Your task to perform on an android device: Is it going to rain today? Image 0: 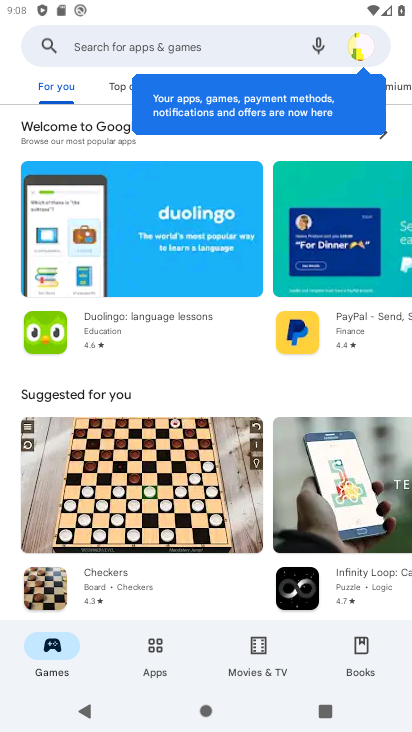
Step 0: press home button
Your task to perform on an android device: Is it going to rain today? Image 1: 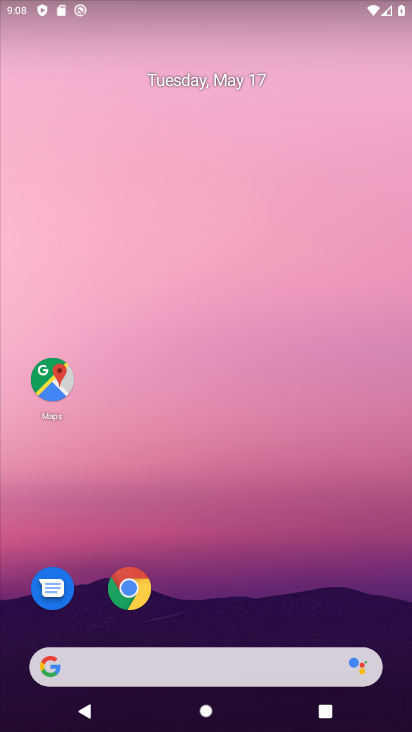
Step 1: drag from (302, 418) to (300, 180)
Your task to perform on an android device: Is it going to rain today? Image 2: 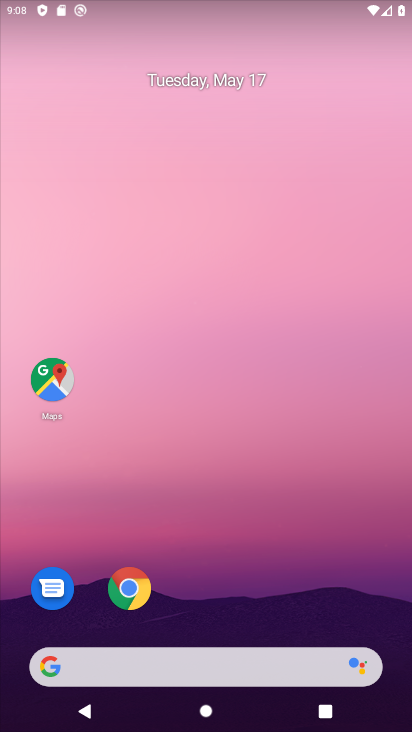
Step 2: click (124, 575)
Your task to perform on an android device: Is it going to rain today? Image 3: 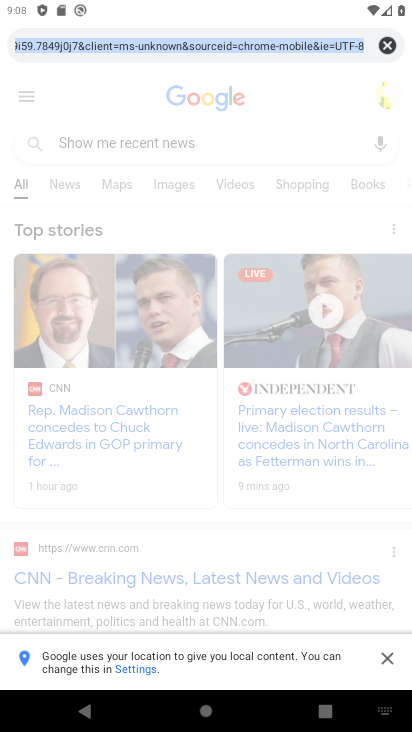
Step 3: click (390, 41)
Your task to perform on an android device: Is it going to rain today? Image 4: 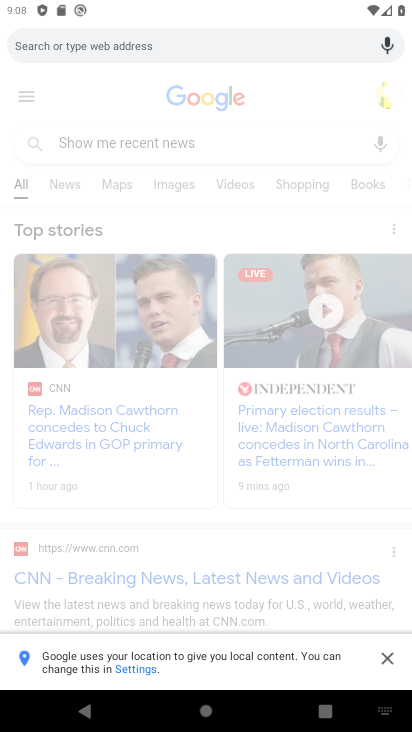
Step 4: click (316, 82)
Your task to perform on an android device: Is it going to rain today? Image 5: 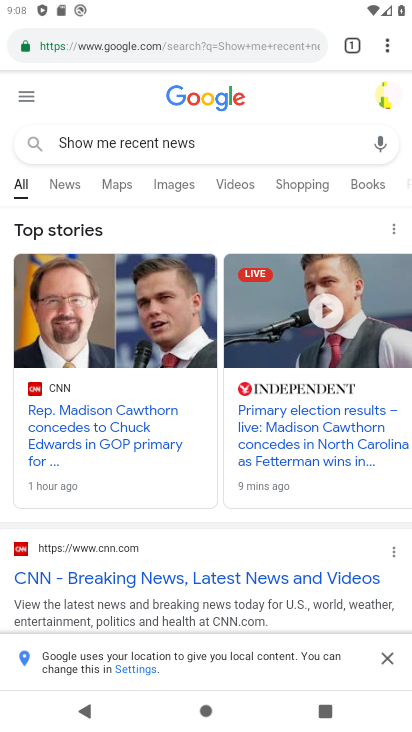
Step 5: click (337, 106)
Your task to perform on an android device: Is it going to rain today? Image 6: 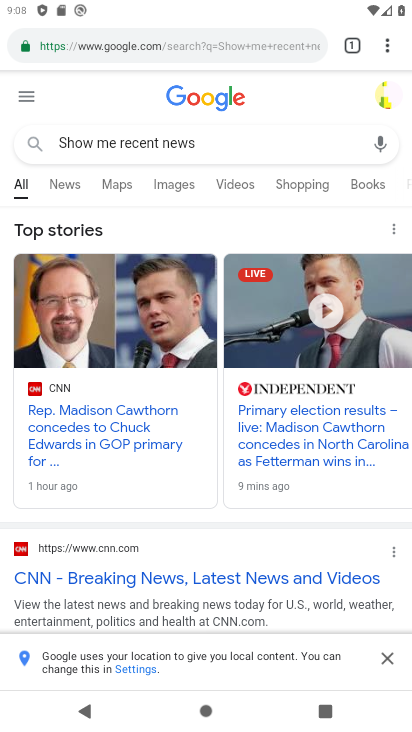
Step 6: click (384, 42)
Your task to perform on an android device: Is it going to rain today? Image 7: 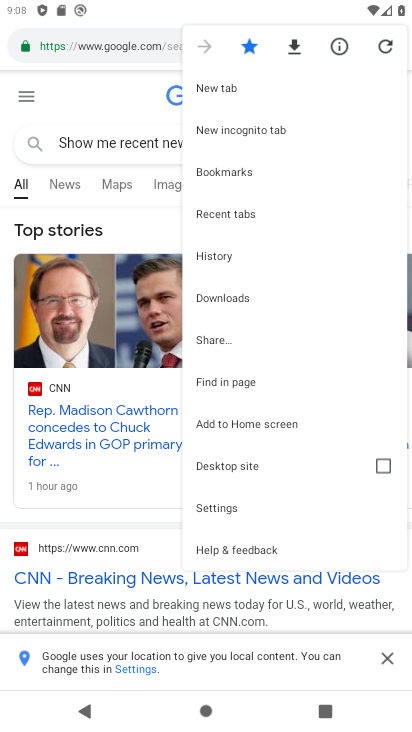
Step 7: click (251, 85)
Your task to perform on an android device: Is it going to rain today? Image 8: 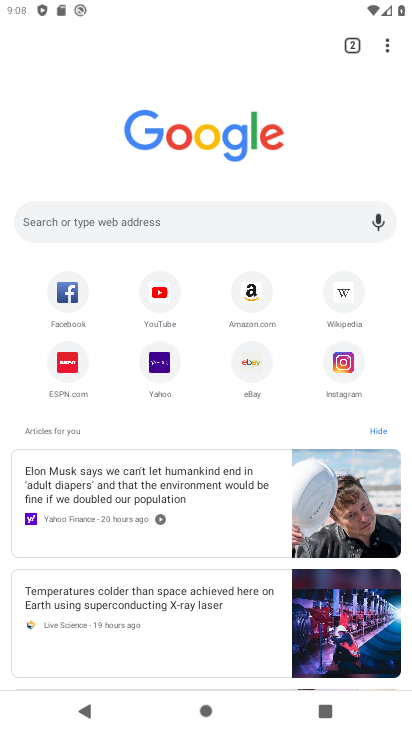
Step 8: click (267, 207)
Your task to perform on an android device: Is it going to rain today? Image 9: 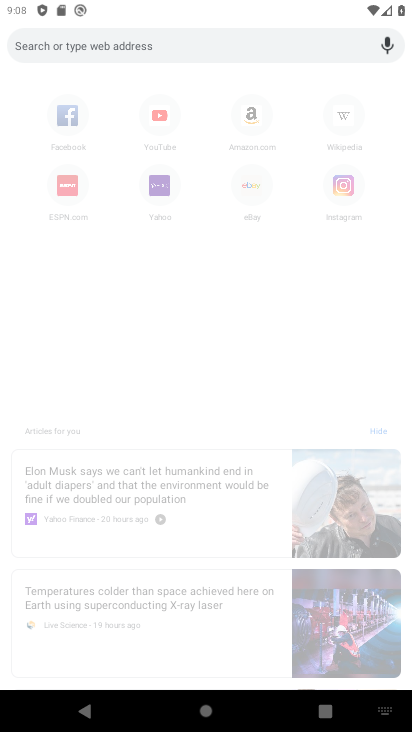
Step 9: type "Is it going to rain today?"
Your task to perform on an android device: Is it going to rain today? Image 10: 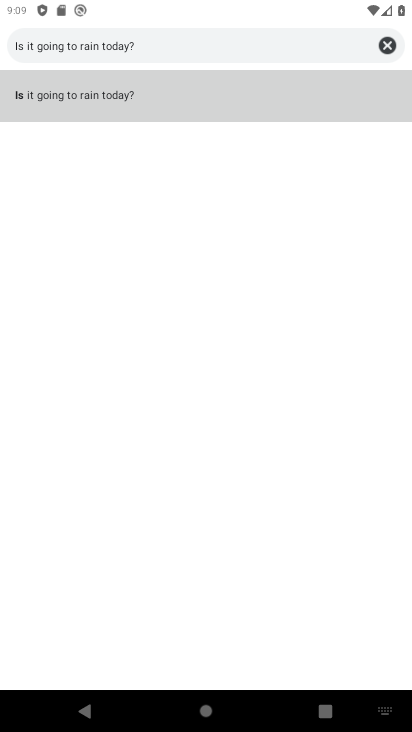
Step 10: click (187, 102)
Your task to perform on an android device: Is it going to rain today? Image 11: 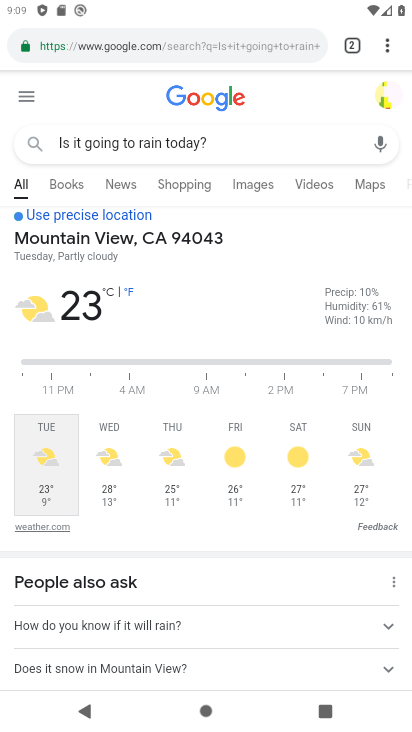
Step 11: task complete